Your task to perform on an android device: What's the price of the Galaxy phone on eBay? Image 0: 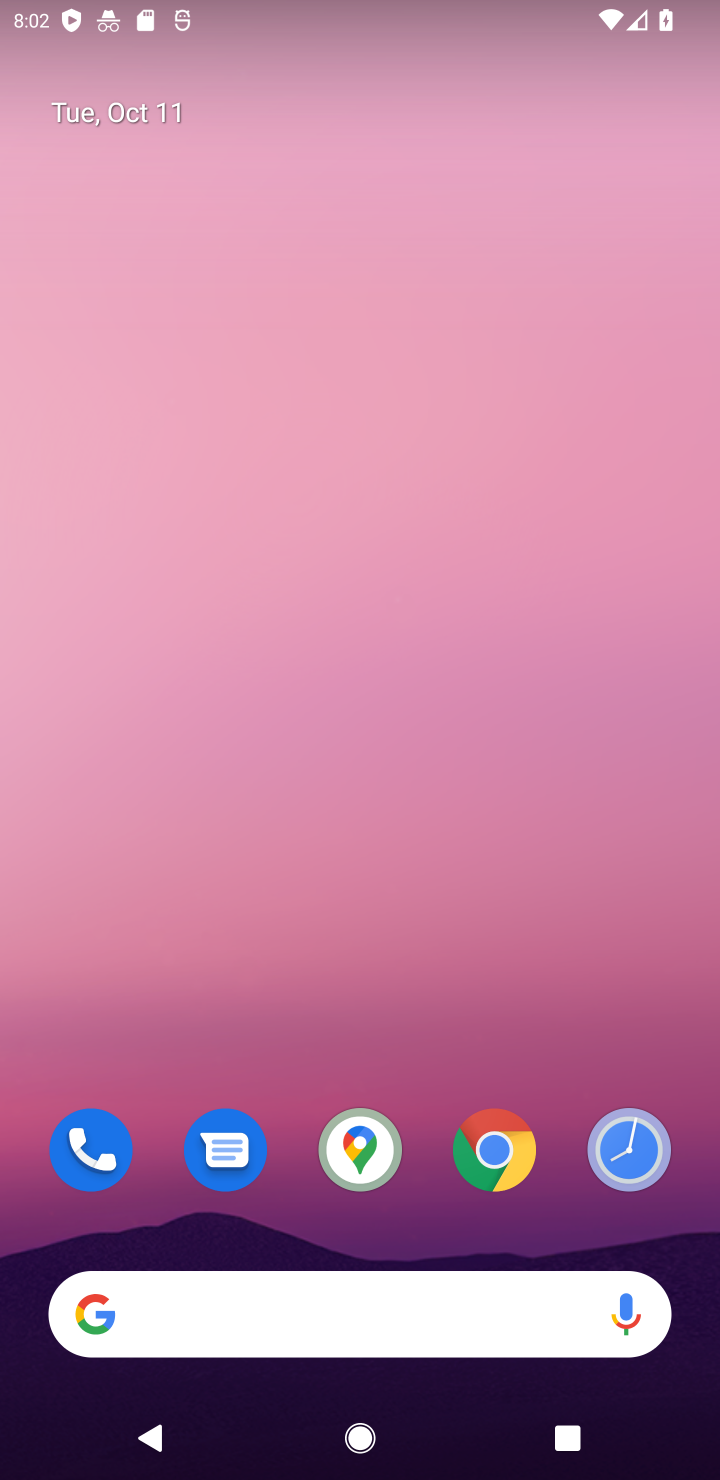
Step 0: click (500, 1158)
Your task to perform on an android device: What's the price of the Galaxy phone on eBay? Image 1: 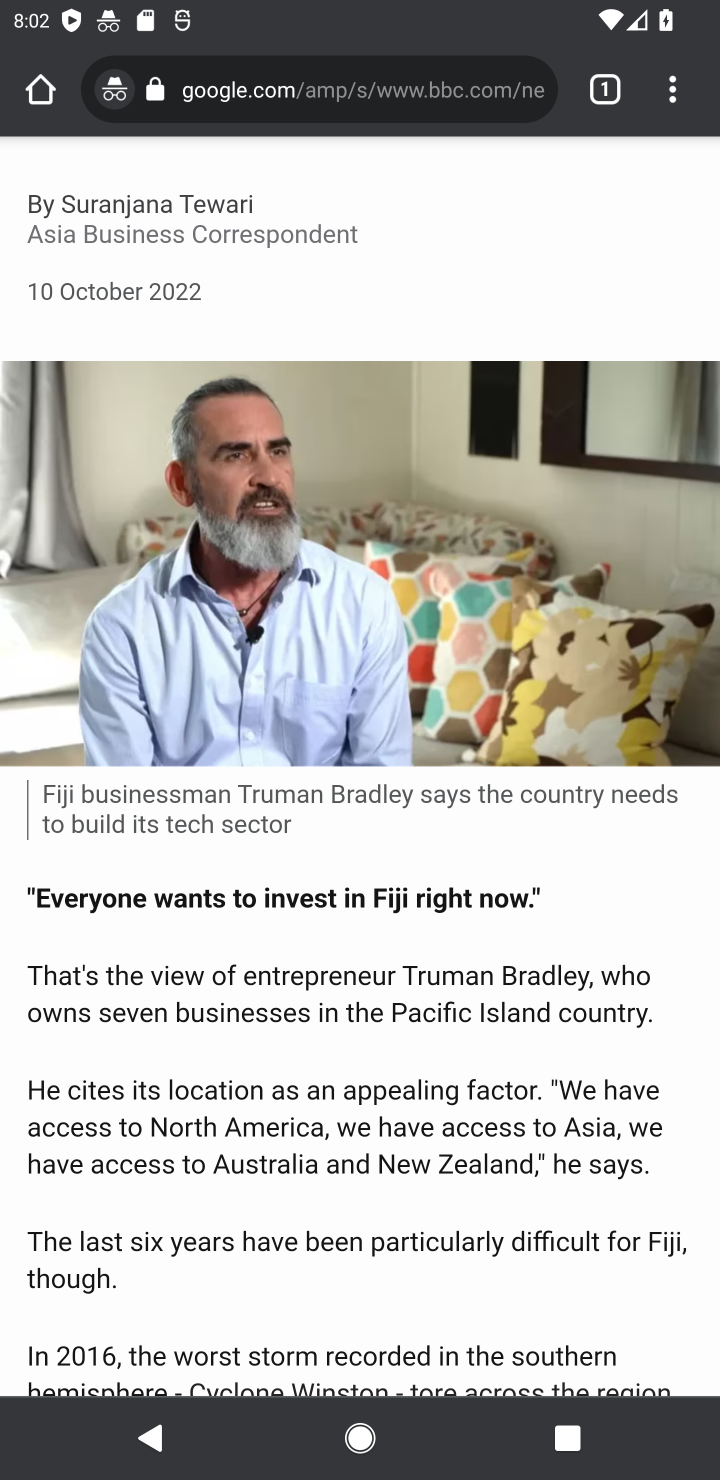
Step 1: click (389, 114)
Your task to perform on an android device: What's the price of the Galaxy phone on eBay? Image 2: 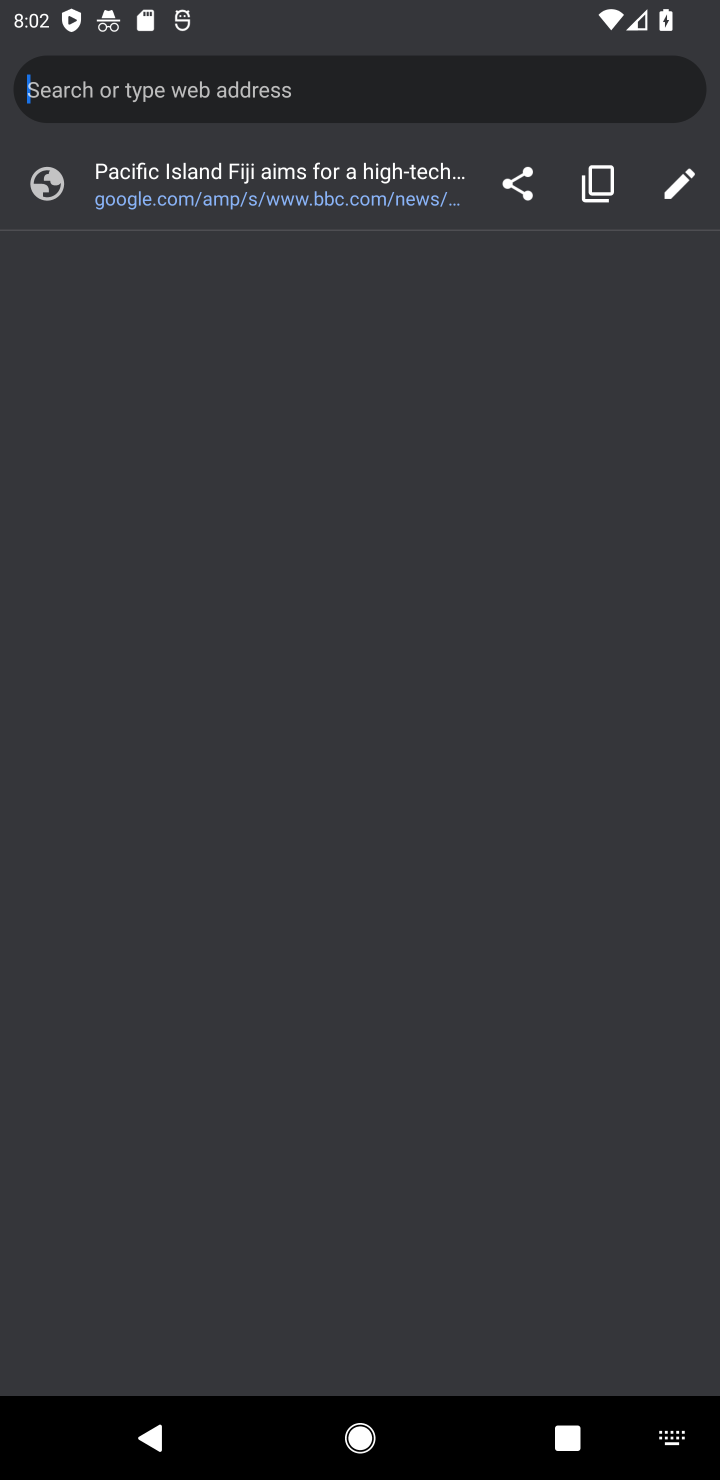
Step 2: type "Galaxy phone on eBay"
Your task to perform on an android device: What's the price of the Galaxy phone on eBay? Image 3: 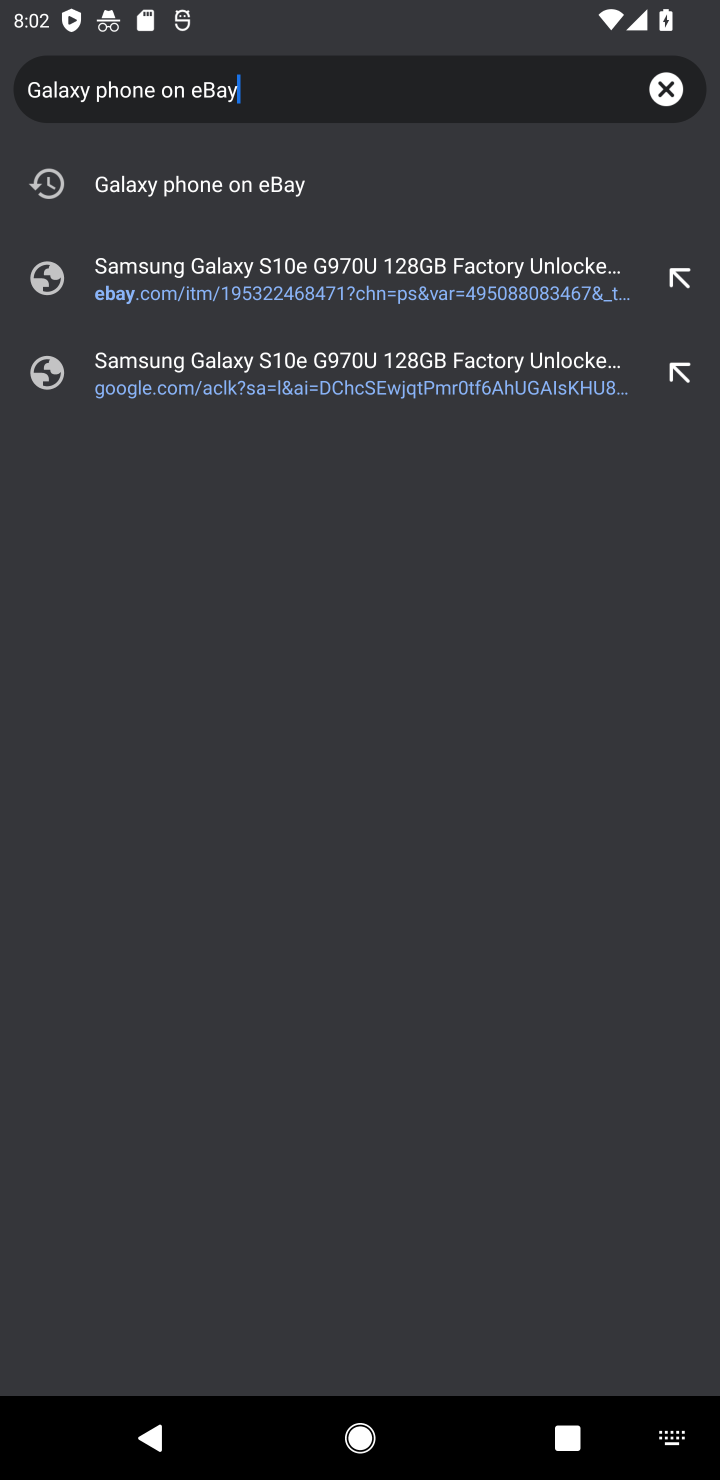
Step 3: click (212, 190)
Your task to perform on an android device: What's the price of the Galaxy phone on eBay? Image 4: 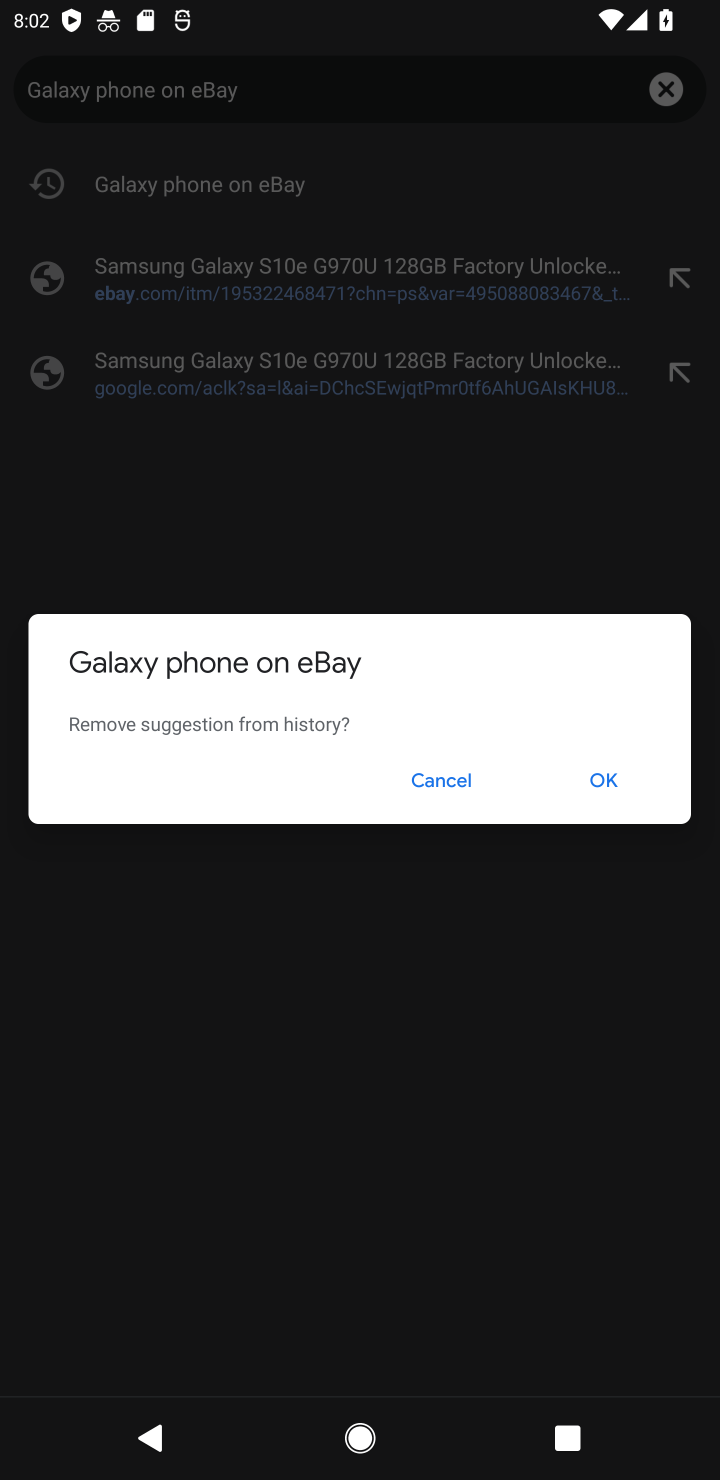
Step 4: click (433, 786)
Your task to perform on an android device: What's the price of the Galaxy phone on eBay? Image 5: 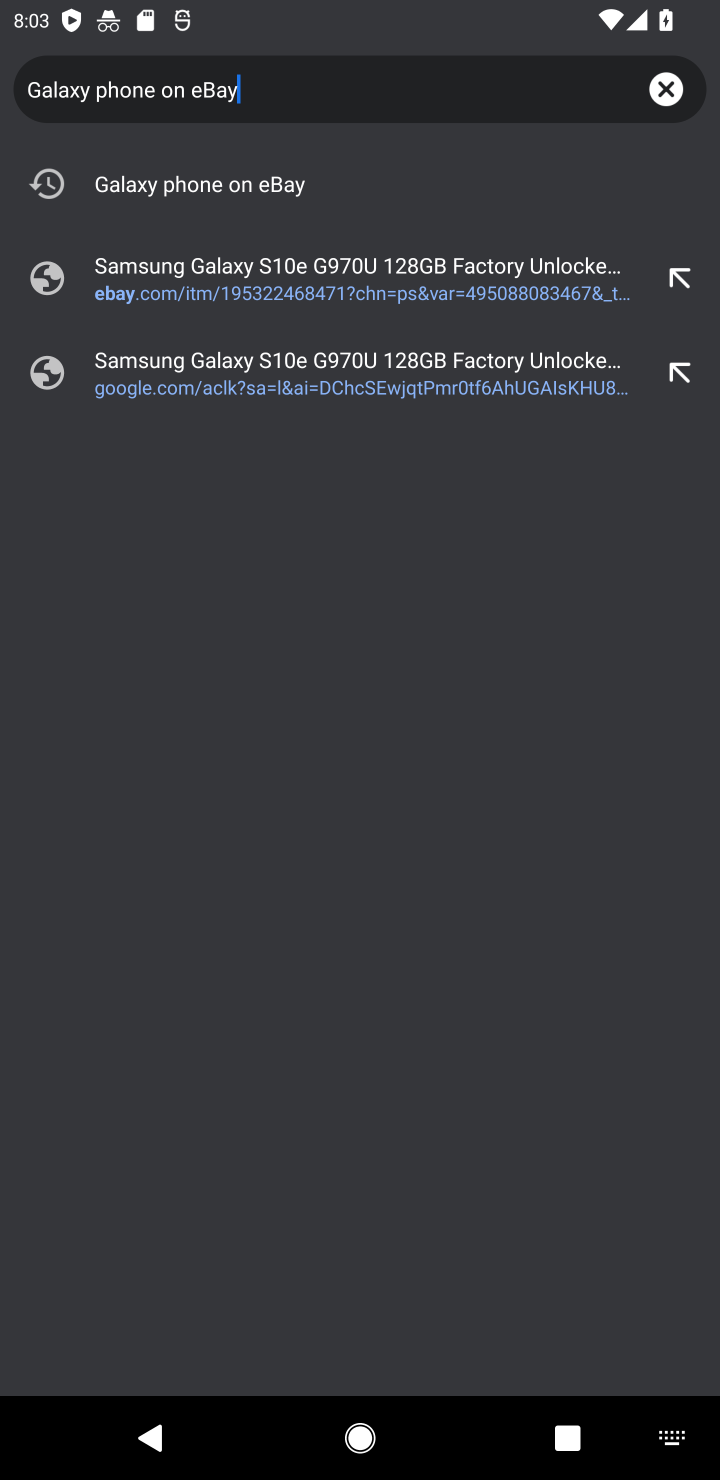
Step 5: click (178, 208)
Your task to perform on an android device: What's the price of the Galaxy phone on eBay? Image 6: 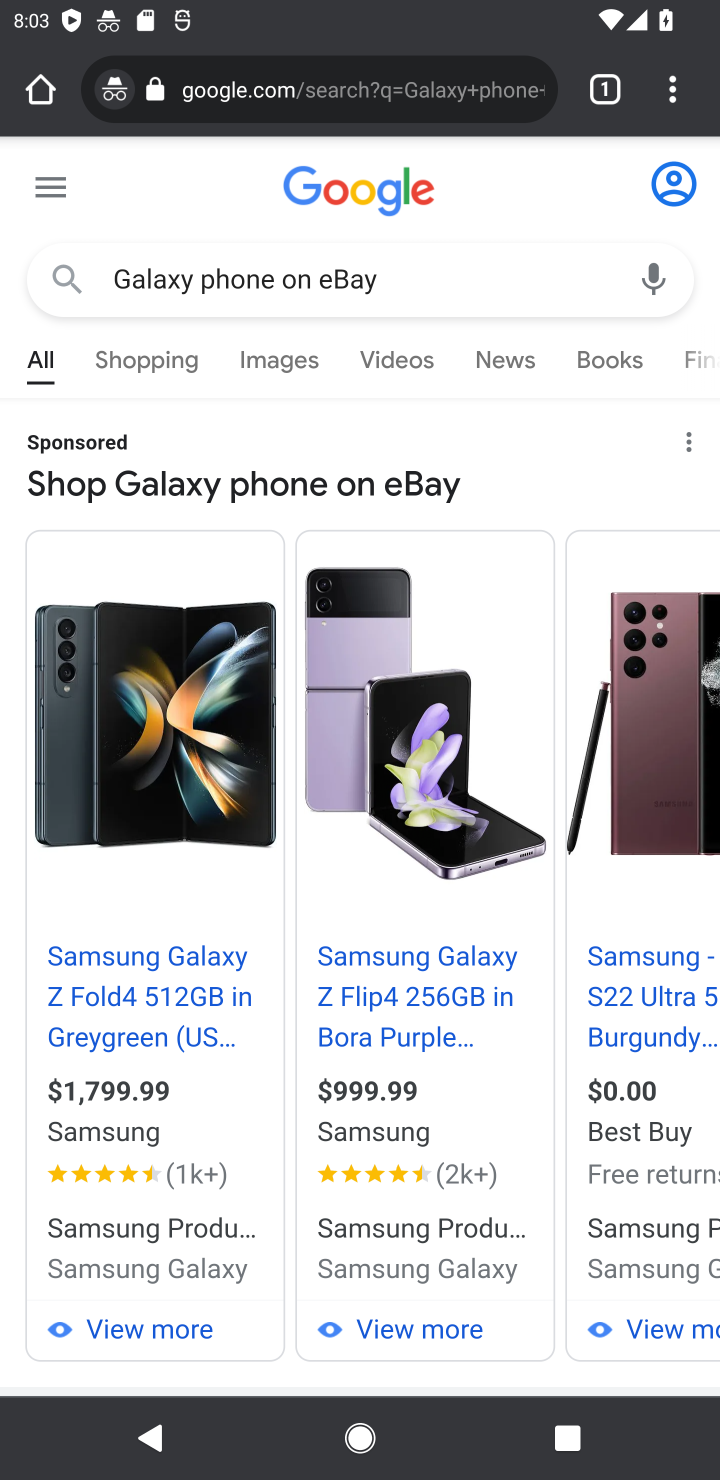
Step 6: drag from (394, 1056) to (26, 1027)
Your task to perform on an android device: What's the price of the Galaxy phone on eBay? Image 7: 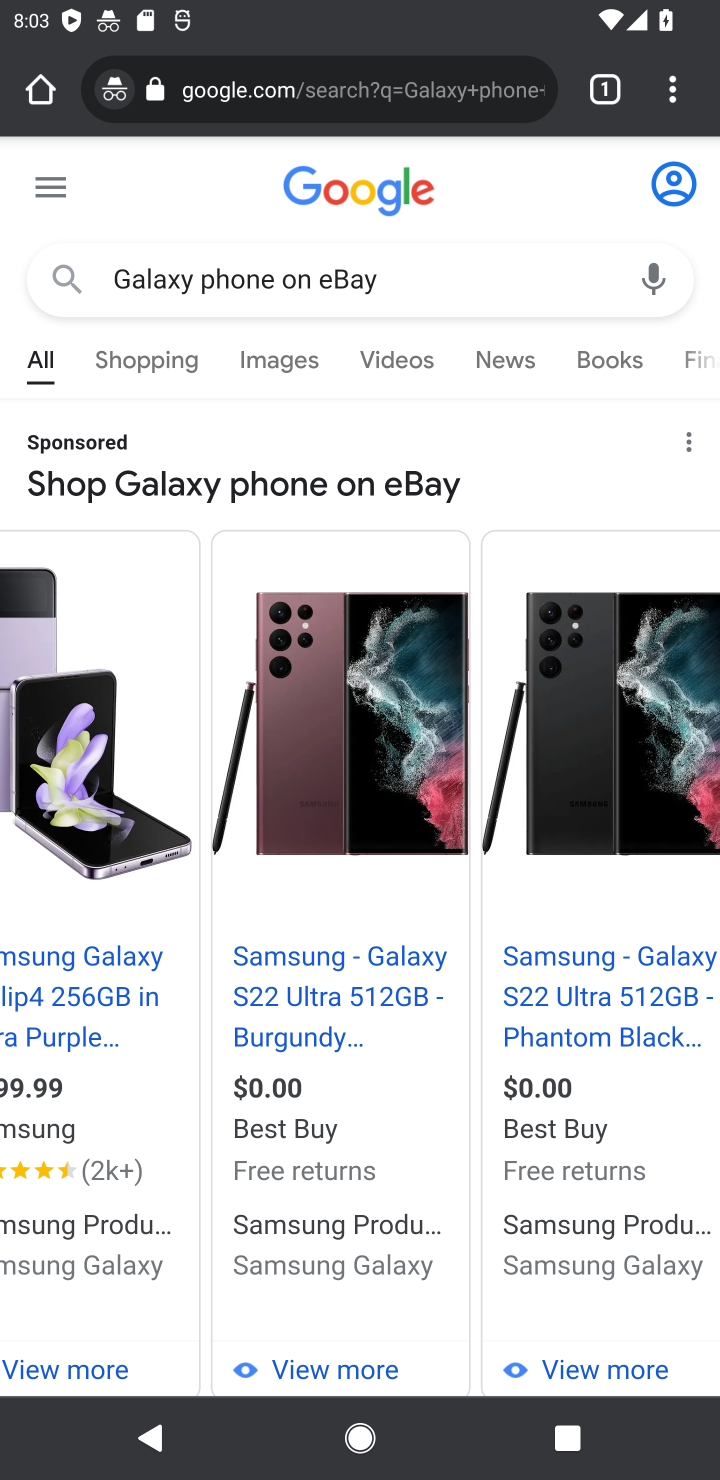
Step 7: drag from (633, 1132) to (5, 1077)
Your task to perform on an android device: What's the price of the Galaxy phone on eBay? Image 8: 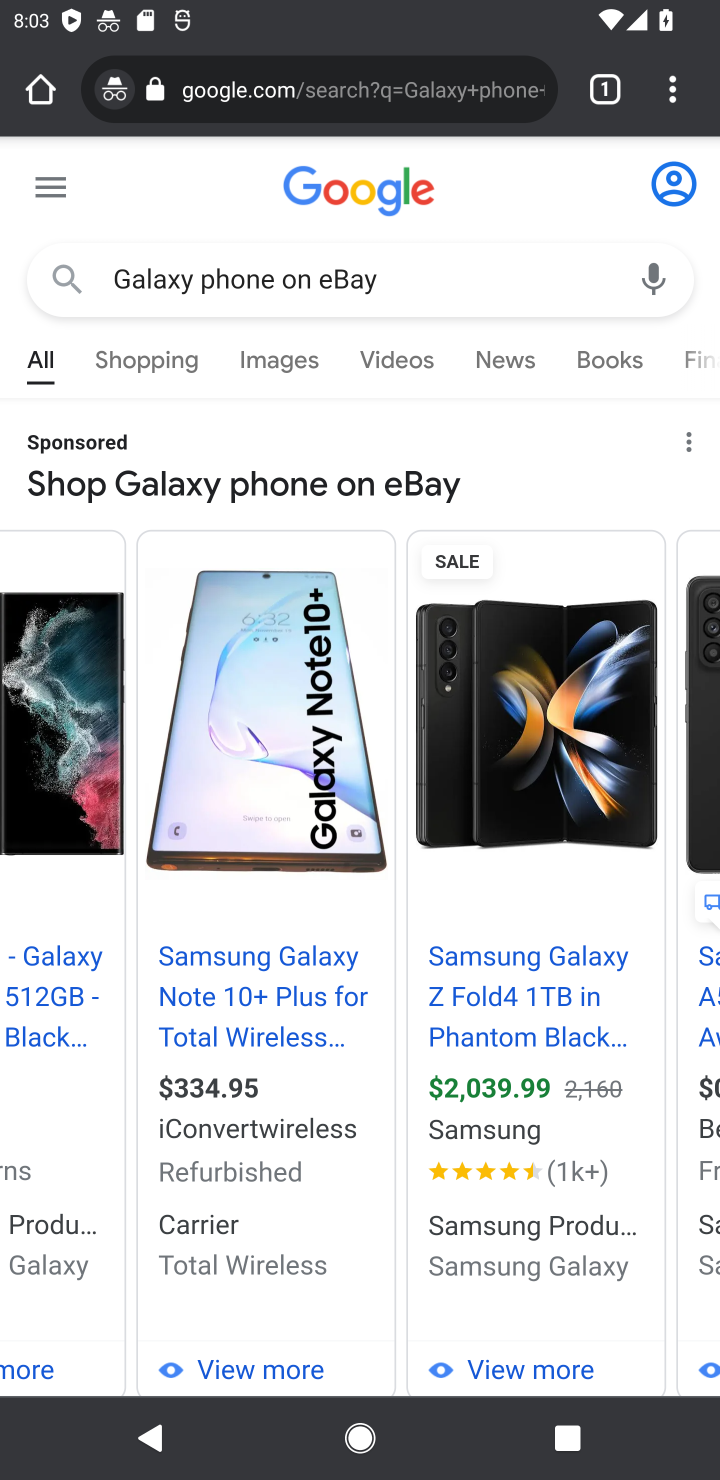
Step 8: drag from (502, 1120) to (458, 641)
Your task to perform on an android device: What's the price of the Galaxy phone on eBay? Image 9: 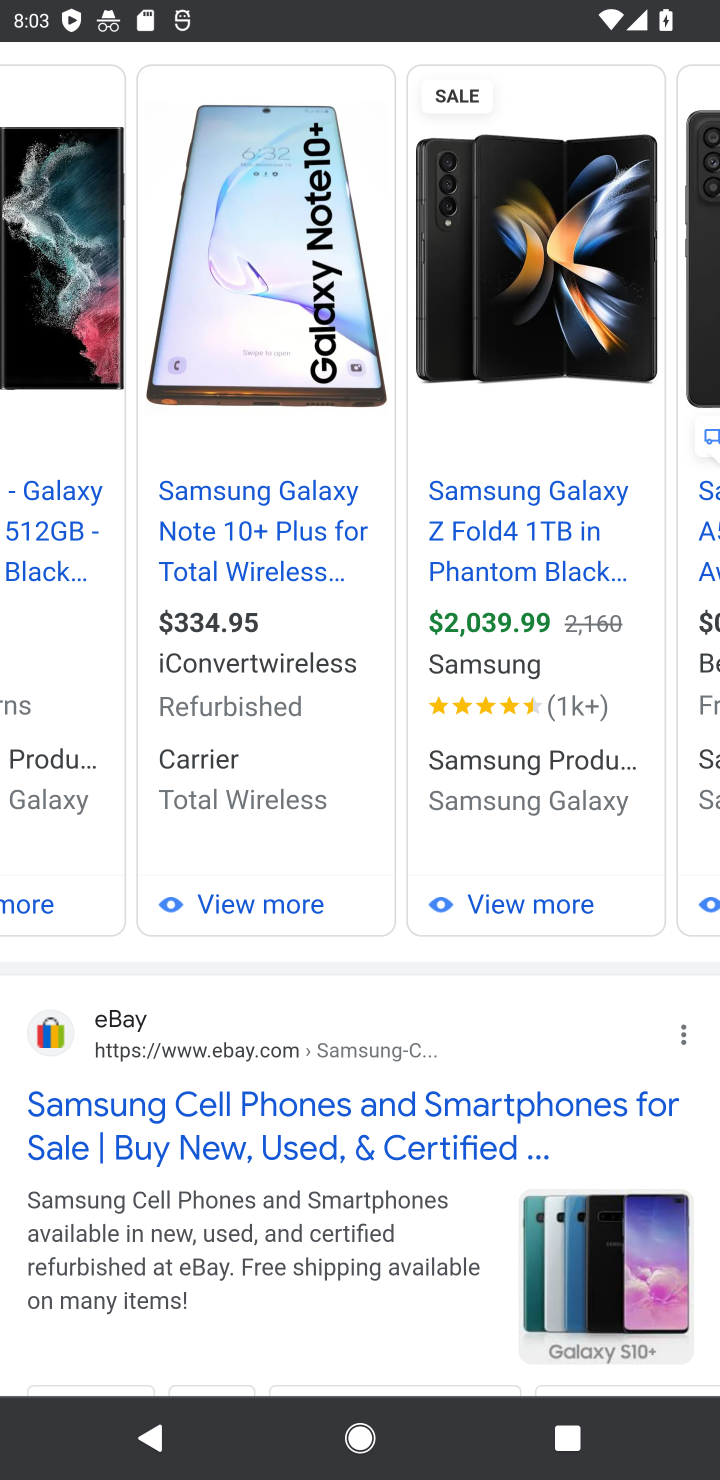
Step 9: click (357, 1134)
Your task to perform on an android device: What's the price of the Galaxy phone on eBay? Image 10: 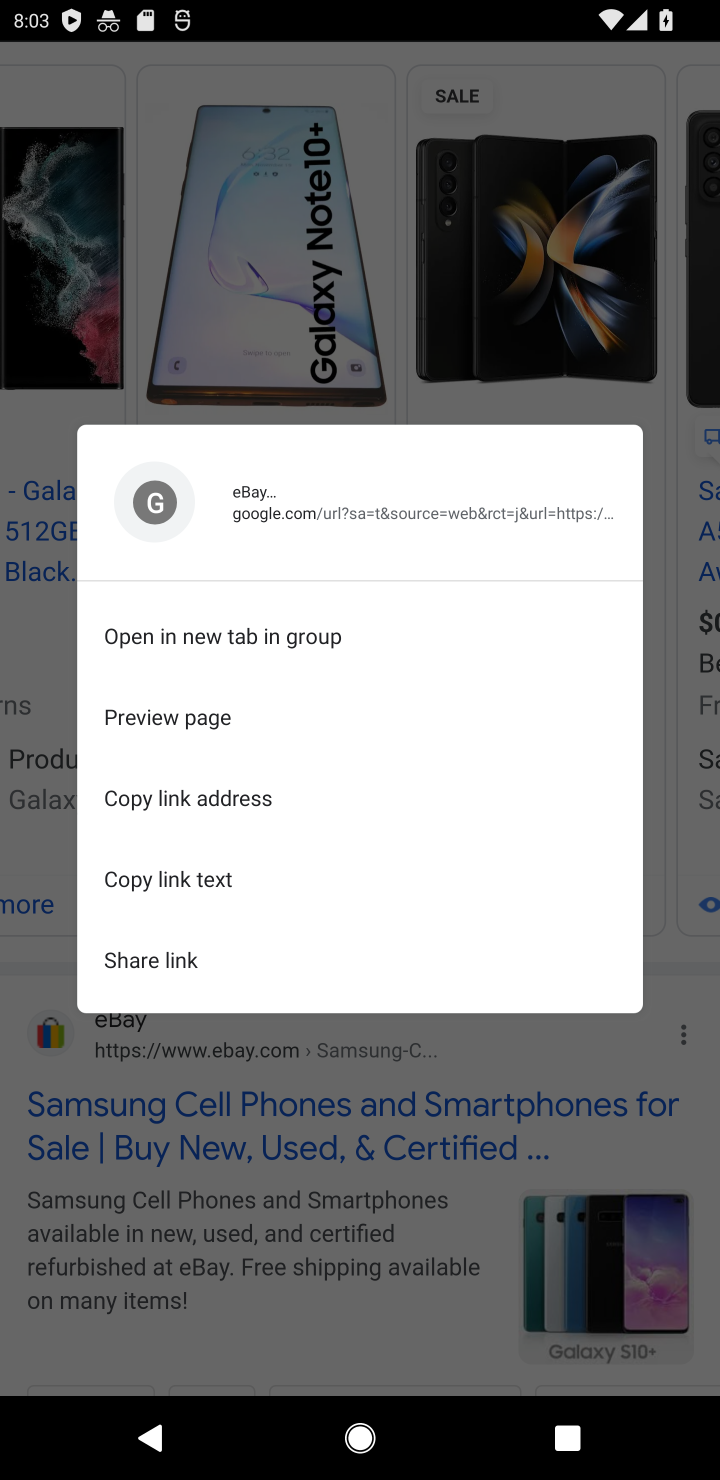
Step 10: click (30, 1100)
Your task to perform on an android device: What's the price of the Galaxy phone on eBay? Image 11: 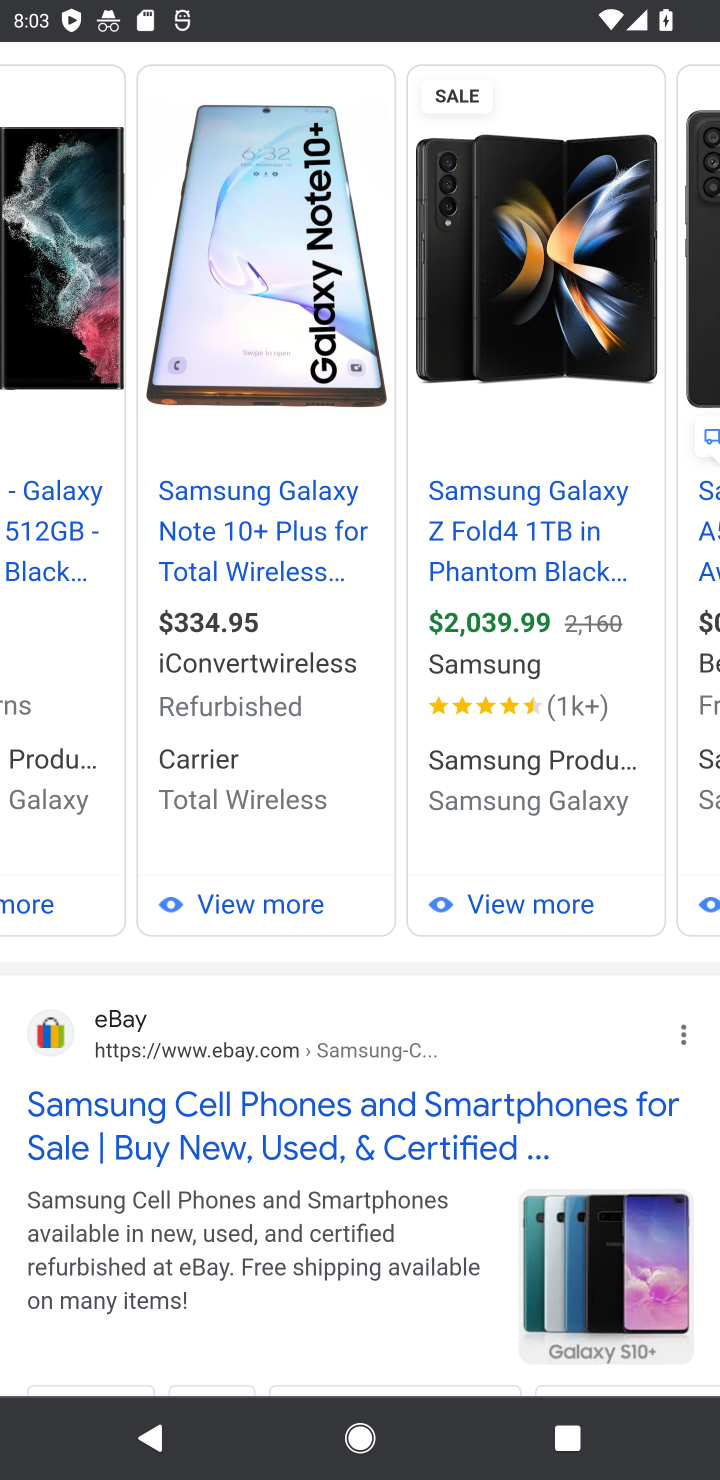
Step 11: click (41, 1105)
Your task to perform on an android device: What's the price of the Galaxy phone on eBay? Image 12: 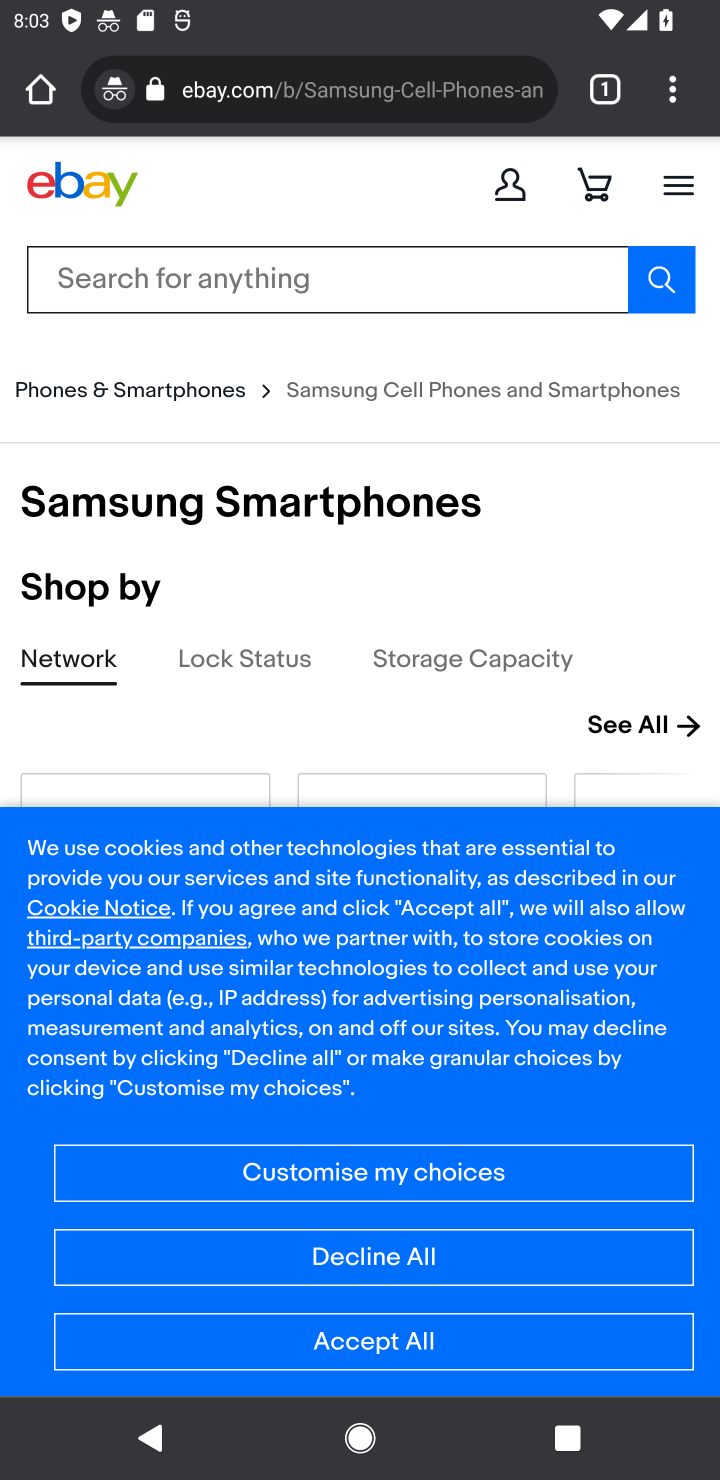
Step 12: task complete